Your task to perform on an android device: change the clock display to show seconds Image 0: 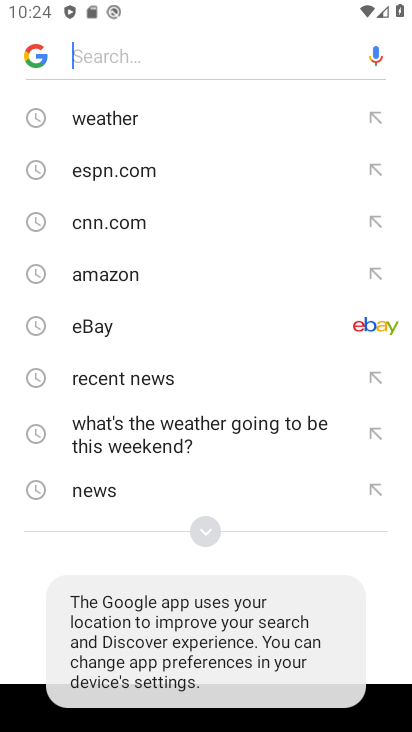
Step 0: press home button
Your task to perform on an android device: change the clock display to show seconds Image 1: 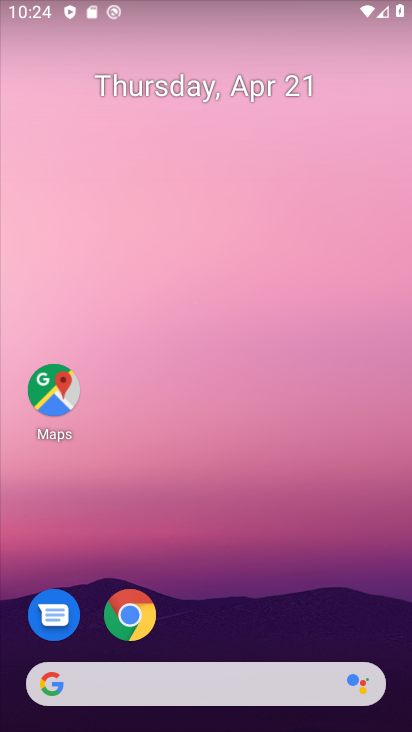
Step 1: drag from (254, 633) to (259, 157)
Your task to perform on an android device: change the clock display to show seconds Image 2: 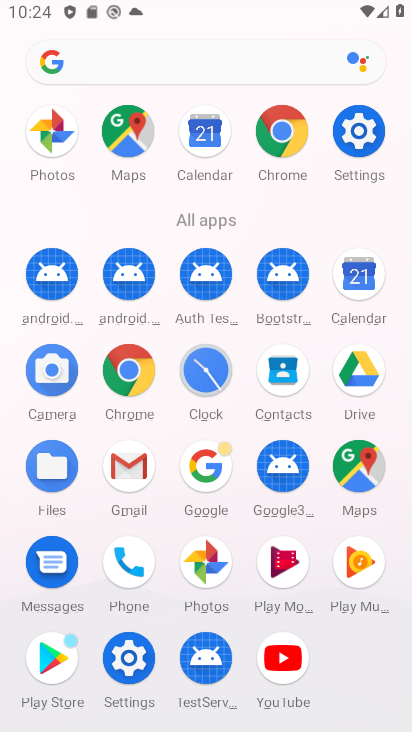
Step 2: click (195, 377)
Your task to perform on an android device: change the clock display to show seconds Image 3: 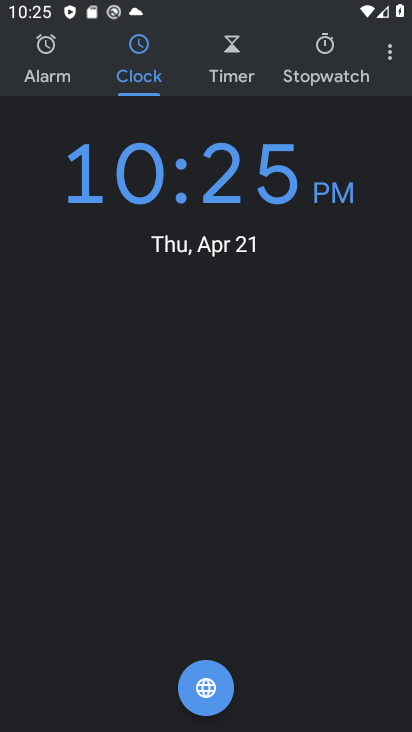
Step 3: click (386, 55)
Your task to perform on an android device: change the clock display to show seconds Image 4: 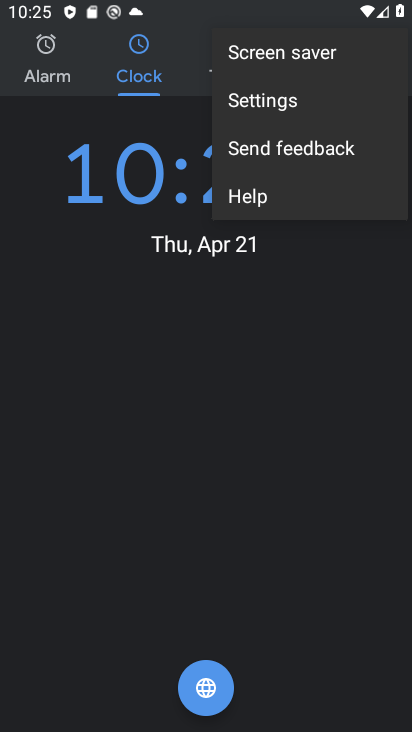
Step 4: click (319, 107)
Your task to perform on an android device: change the clock display to show seconds Image 5: 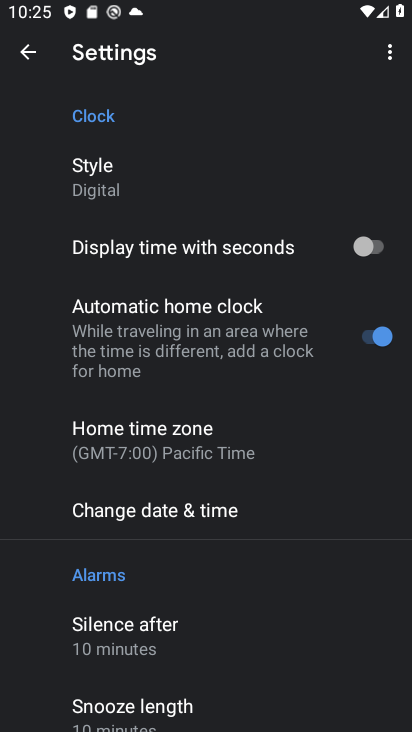
Step 5: click (368, 243)
Your task to perform on an android device: change the clock display to show seconds Image 6: 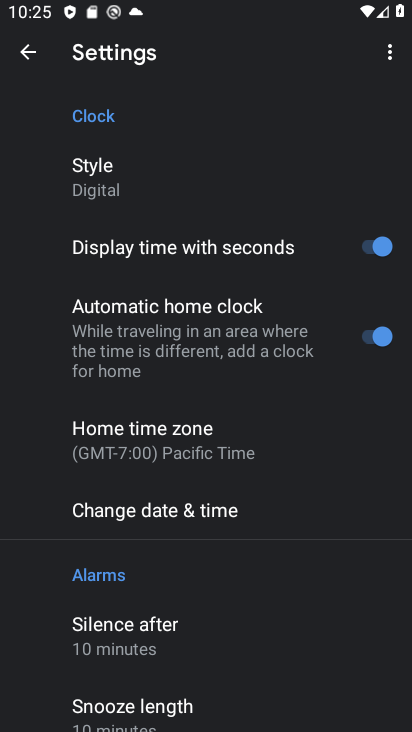
Step 6: task complete